Your task to perform on an android device: see creations saved in the google photos Image 0: 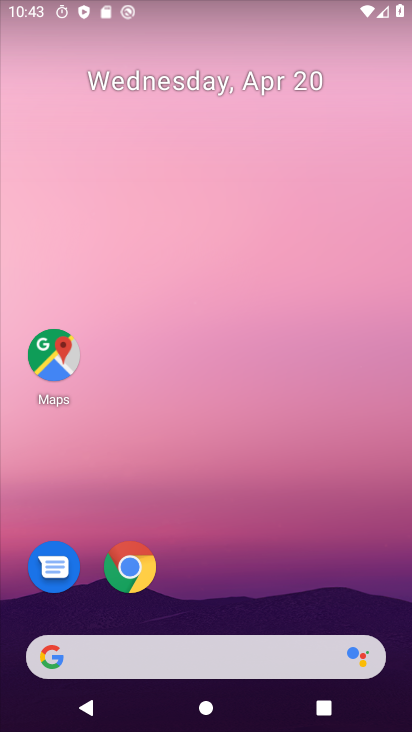
Step 0: drag from (242, 582) to (279, 0)
Your task to perform on an android device: see creations saved in the google photos Image 1: 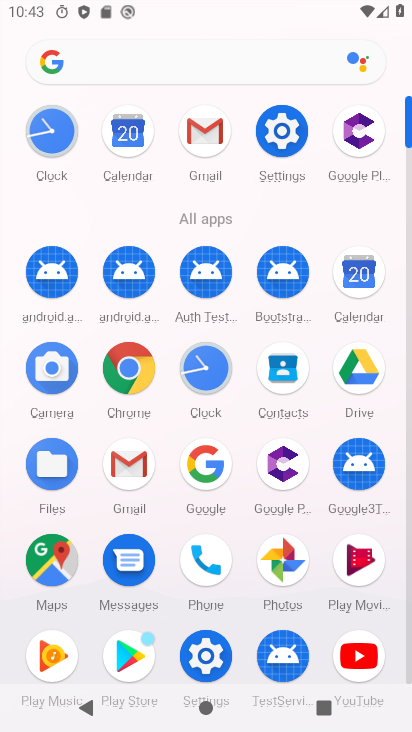
Step 1: click (289, 561)
Your task to perform on an android device: see creations saved in the google photos Image 2: 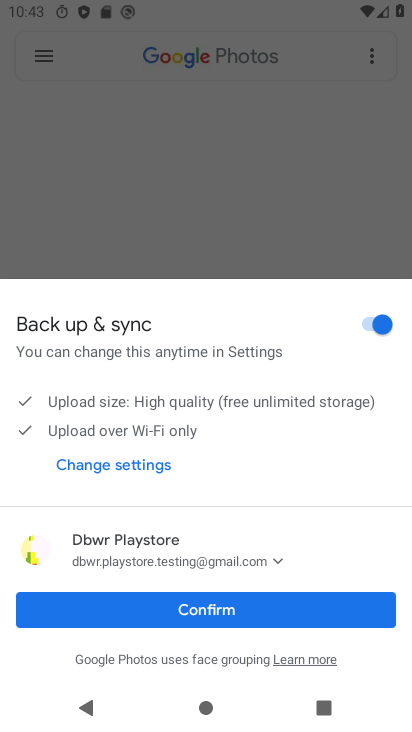
Step 2: click (247, 607)
Your task to perform on an android device: see creations saved in the google photos Image 3: 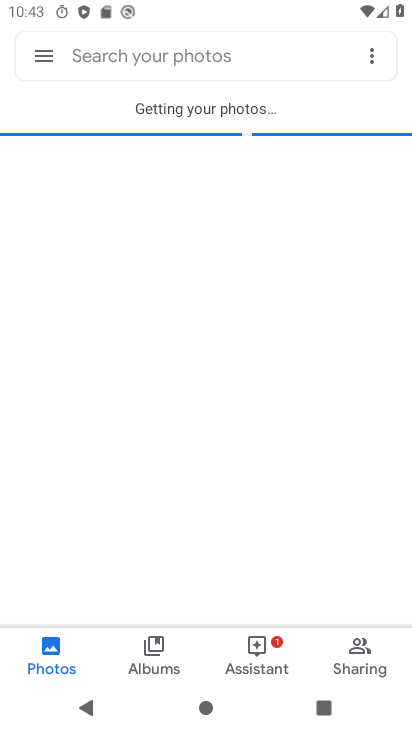
Step 3: click (249, 69)
Your task to perform on an android device: see creations saved in the google photos Image 4: 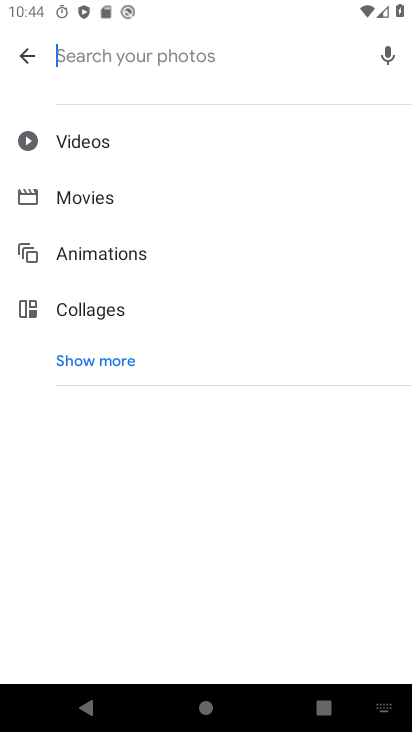
Step 4: click (101, 354)
Your task to perform on an android device: see creations saved in the google photos Image 5: 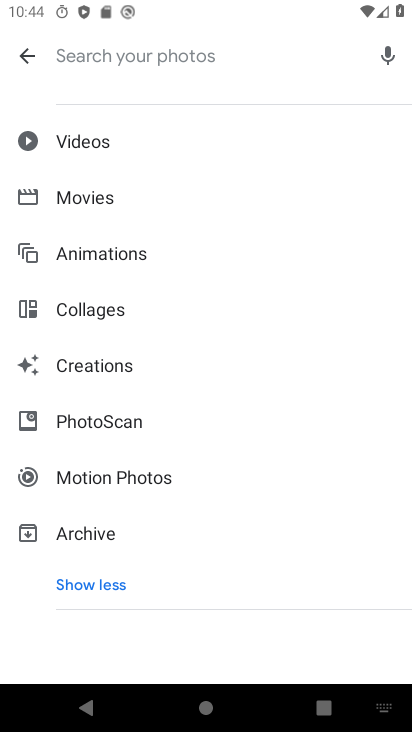
Step 5: click (123, 371)
Your task to perform on an android device: see creations saved in the google photos Image 6: 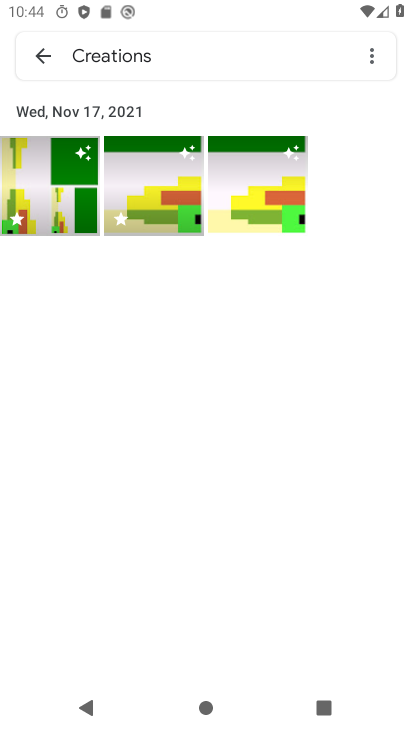
Step 6: task complete